Your task to perform on an android device: turn off wifi Image 0: 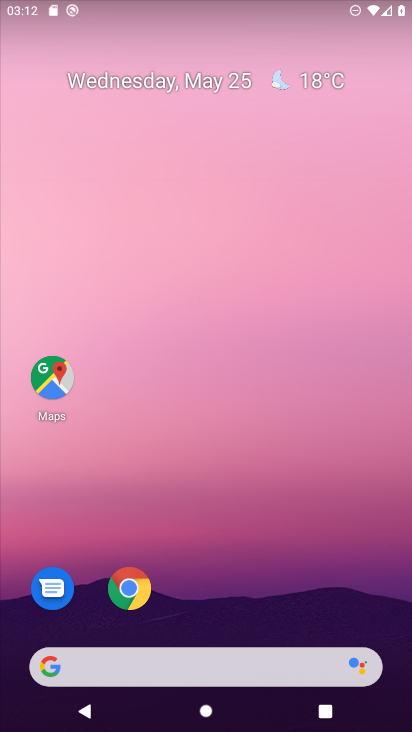
Step 0: drag from (363, 11) to (334, 570)
Your task to perform on an android device: turn off wifi Image 1: 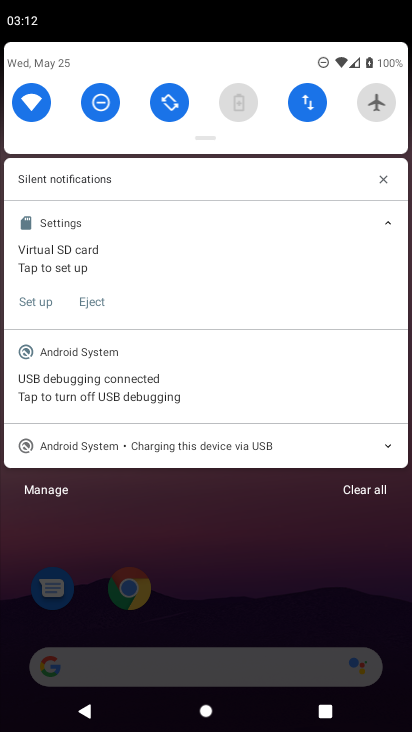
Step 1: click (27, 107)
Your task to perform on an android device: turn off wifi Image 2: 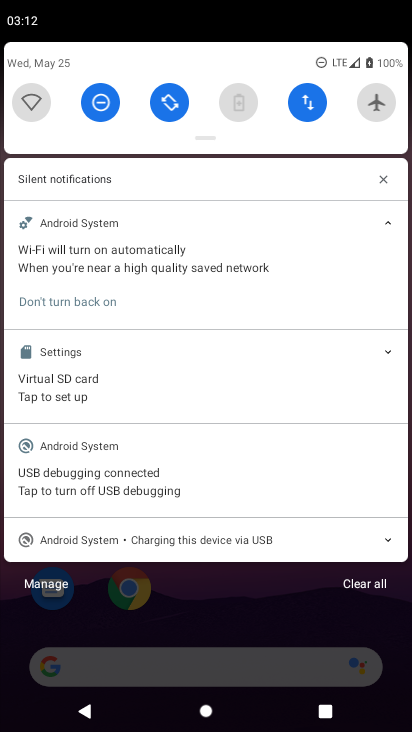
Step 2: task complete